Your task to perform on an android device: turn off location history Image 0: 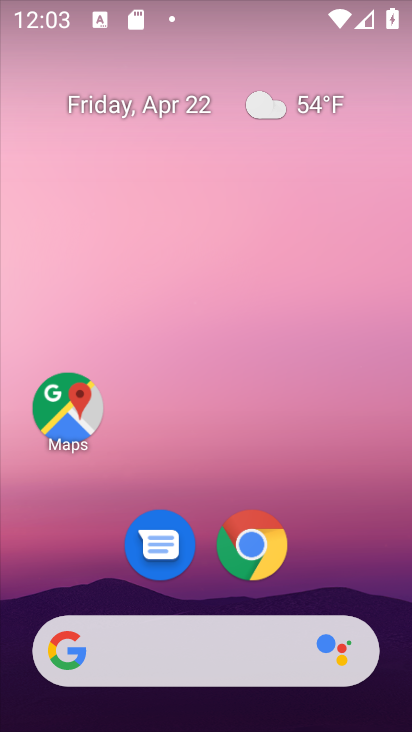
Step 0: drag from (217, 459) to (256, 77)
Your task to perform on an android device: turn off location history Image 1: 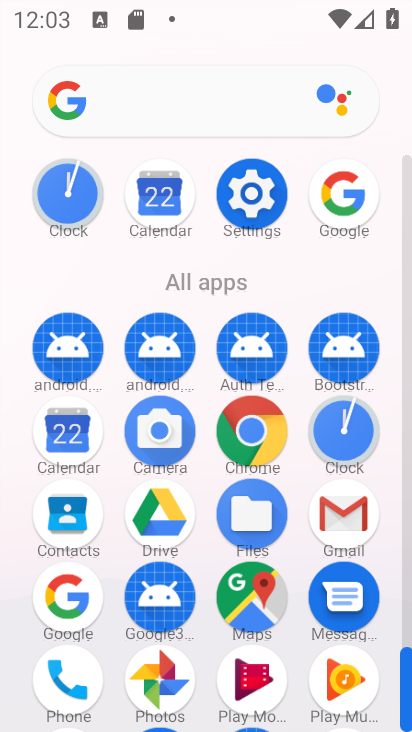
Step 1: click (251, 205)
Your task to perform on an android device: turn off location history Image 2: 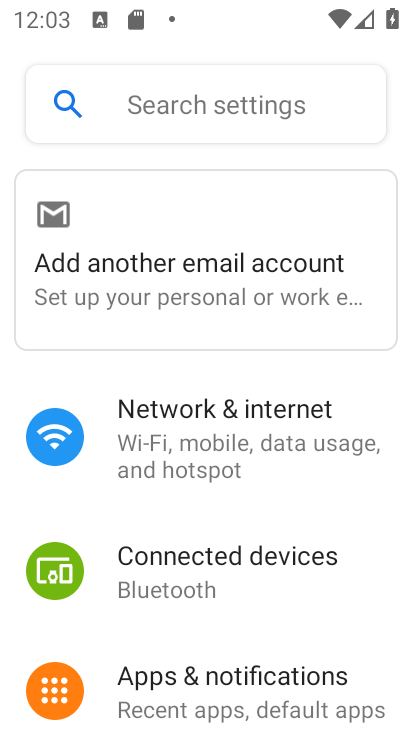
Step 2: drag from (224, 612) to (209, 151)
Your task to perform on an android device: turn off location history Image 3: 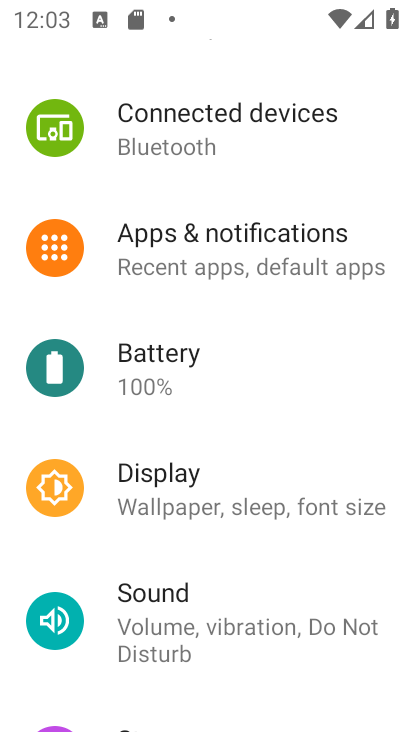
Step 3: drag from (247, 634) to (226, 196)
Your task to perform on an android device: turn off location history Image 4: 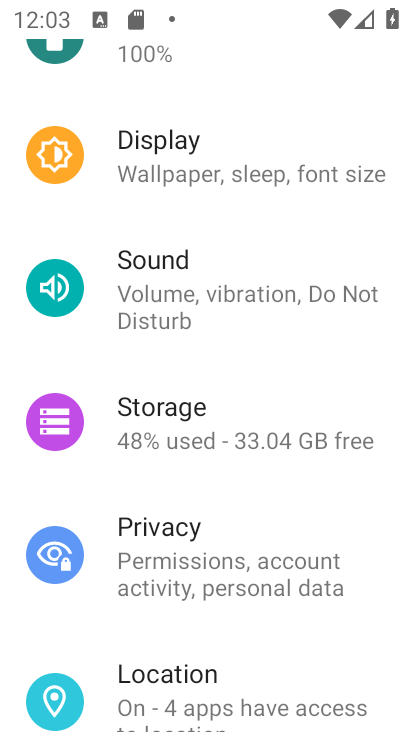
Step 4: click (228, 681)
Your task to perform on an android device: turn off location history Image 5: 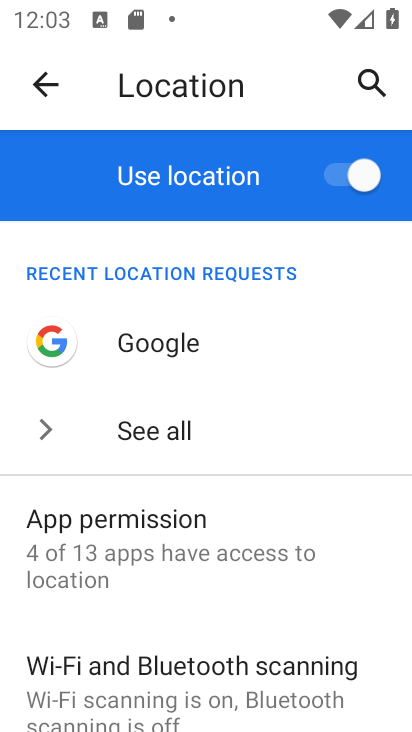
Step 5: drag from (197, 627) to (238, 281)
Your task to perform on an android device: turn off location history Image 6: 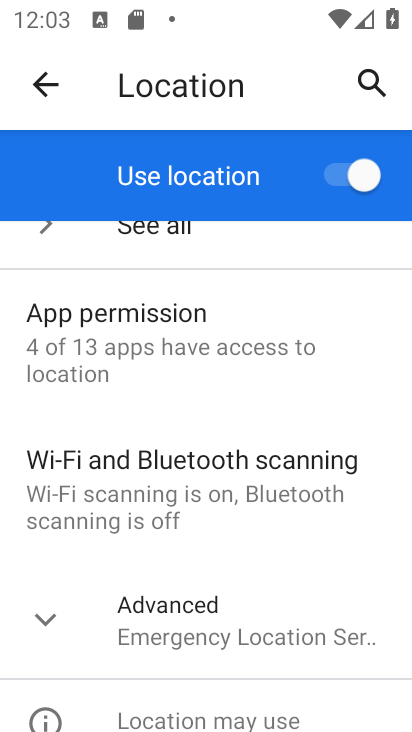
Step 6: click (211, 614)
Your task to perform on an android device: turn off location history Image 7: 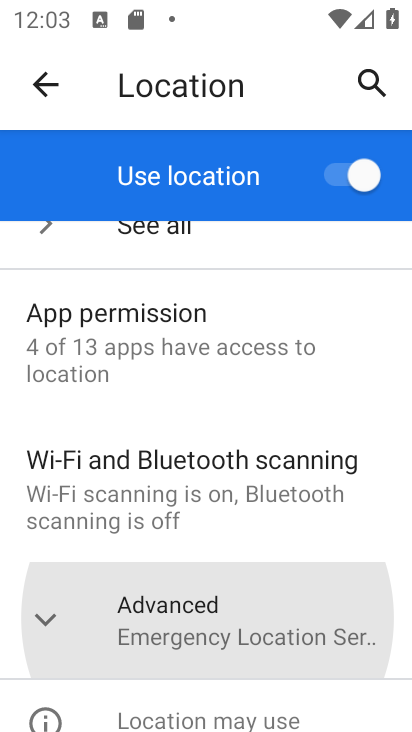
Step 7: task complete